Your task to perform on an android device: What's on my calendar tomorrow? Image 0: 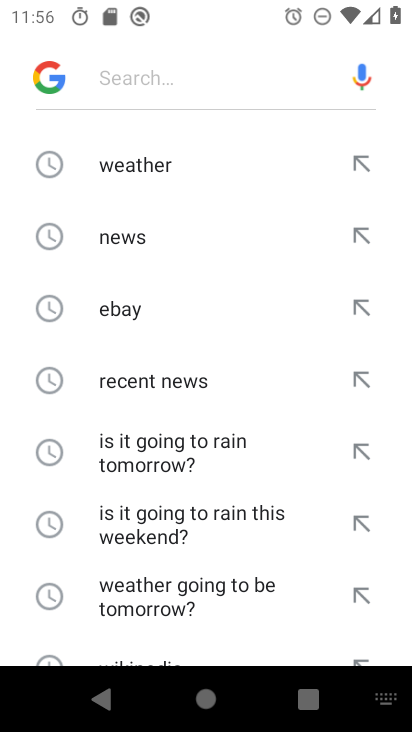
Step 0: press home button
Your task to perform on an android device: What's on my calendar tomorrow? Image 1: 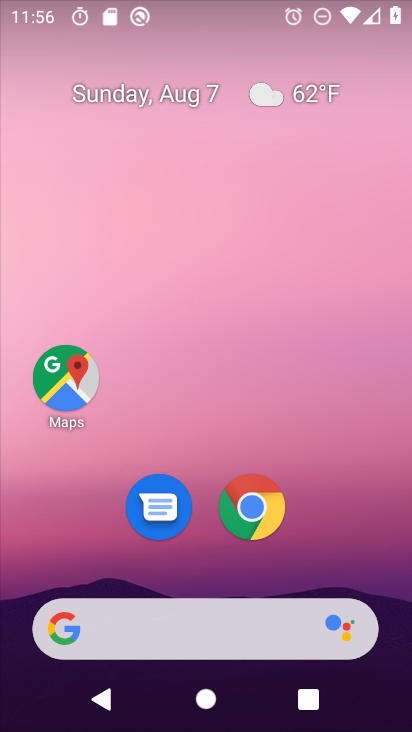
Step 1: drag from (354, 561) to (351, 3)
Your task to perform on an android device: What's on my calendar tomorrow? Image 2: 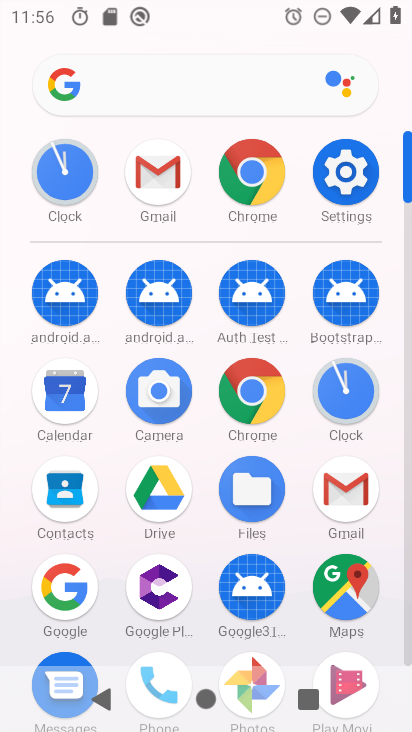
Step 2: click (70, 394)
Your task to perform on an android device: What's on my calendar tomorrow? Image 3: 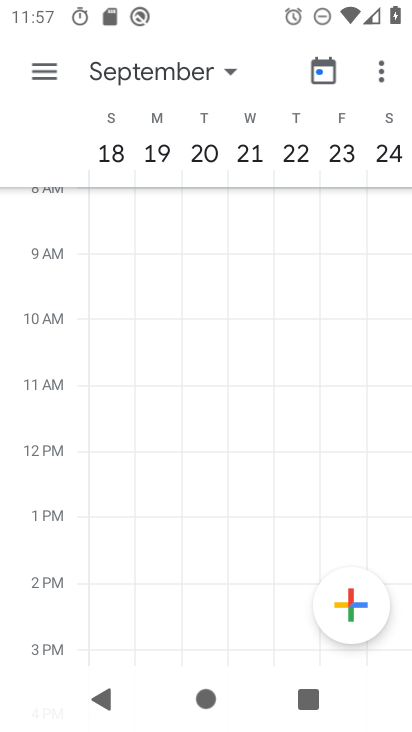
Step 3: click (149, 74)
Your task to perform on an android device: What's on my calendar tomorrow? Image 4: 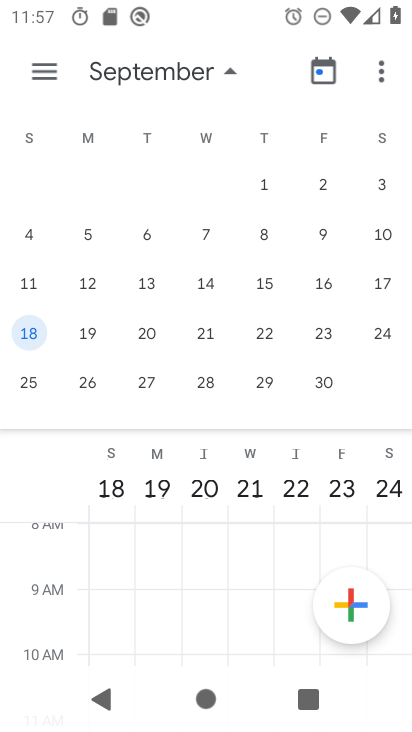
Step 4: drag from (79, 271) to (403, 293)
Your task to perform on an android device: What's on my calendar tomorrow? Image 5: 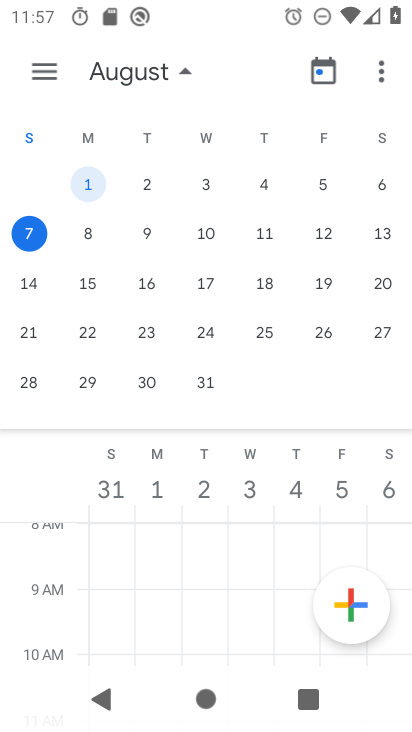
Step 5: click (84, 233)
Your task to perform on an android device: What's on my calendar tomorrow? Image 6: 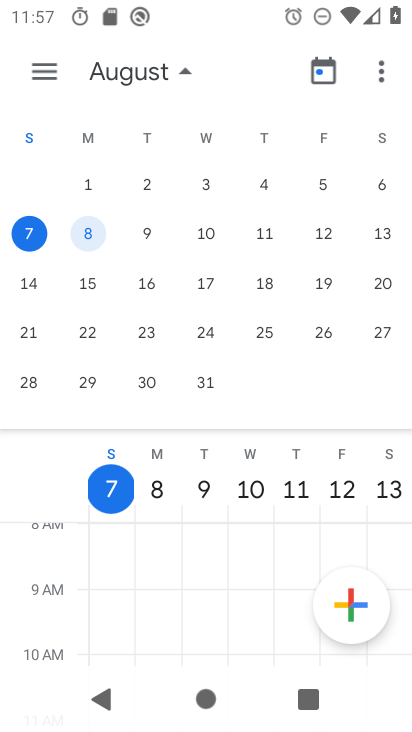
Step 6: click (163, 494)
Your task to perform on an android device: What's on my calendar tomorrow? Image 7: 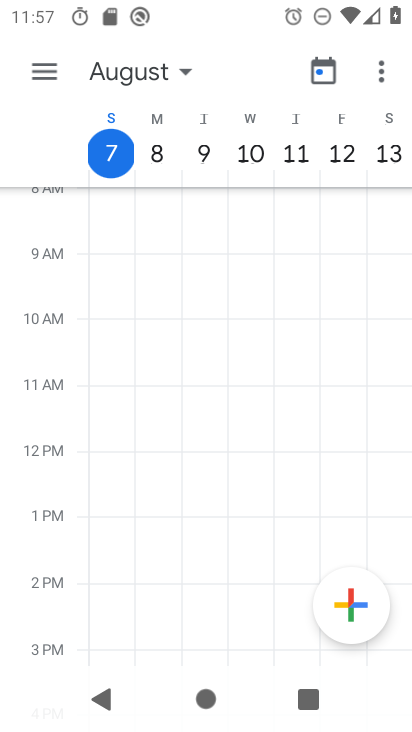
Step 7: click (146, 144)
Your task to perform on an android device: What's on my calendar tomorrow? Image 8: 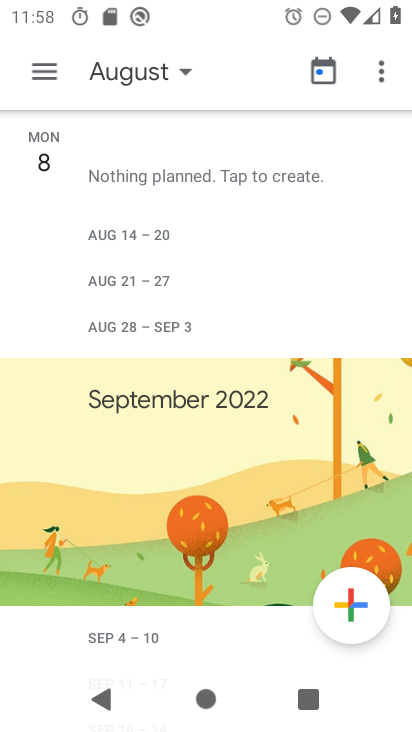
Step 8: task complete